Your task to perform on an android device: Open Google Maps and go to "Timeline" Image 0: 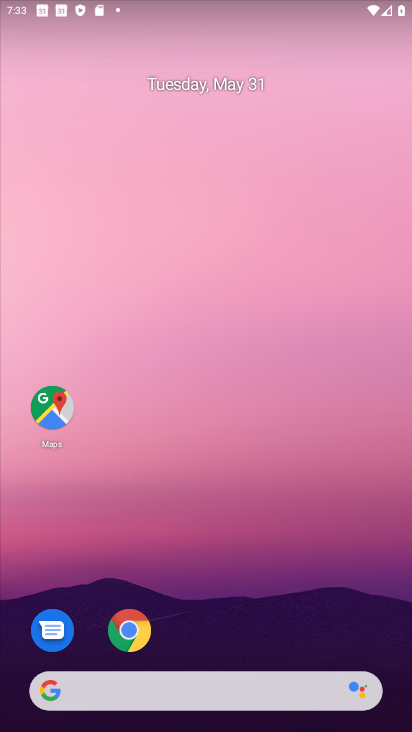
Step 0: drag from (253, 637) to (261, 247)
Your task to perform on an android device: Open Google Maps and go to "Timeline" Image 1: 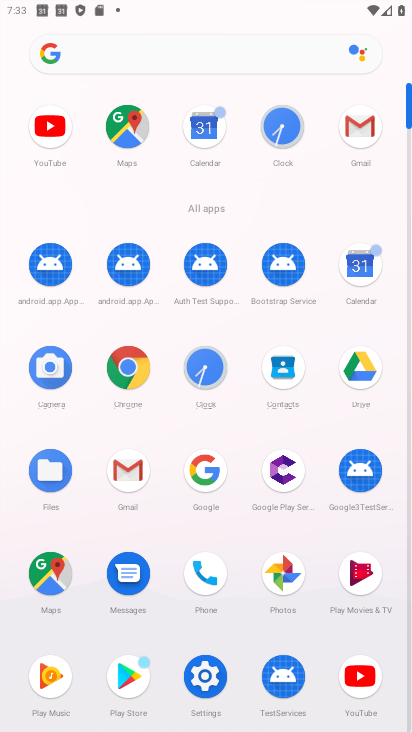
Step 1: click (41, 577)
Your task to perform on an android device: Open Google Maps and go to "Timeline" Image 2: 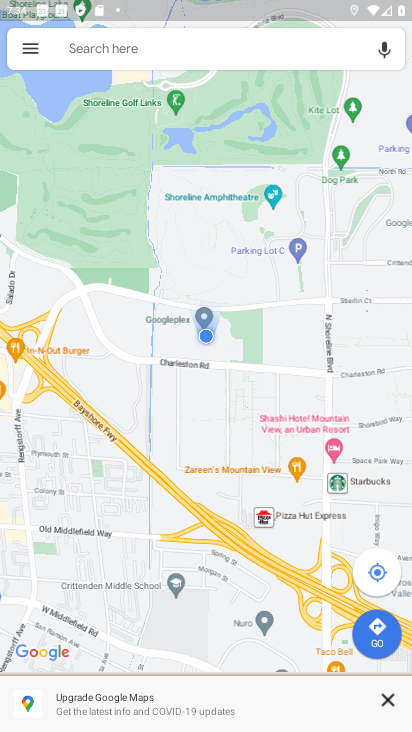
Step 2: click (18, 41)
Your task to perform on an android device: Open Google Maps and go to "Timeline" Image 3: 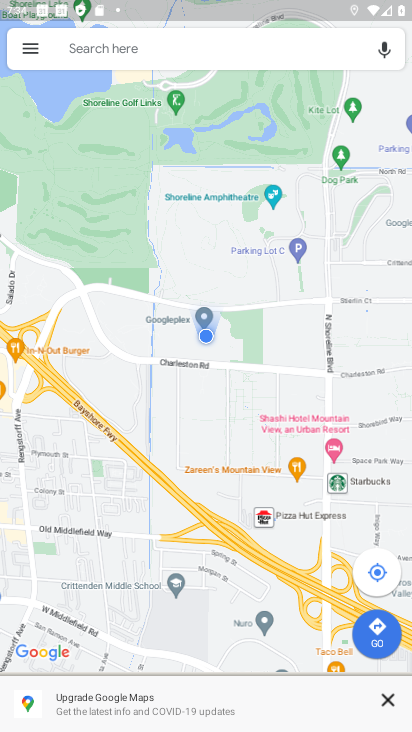
Step 3: click (25, 34)
Your task to perform on an android device: Open Google Maps and go to "Timeline" Image 4: 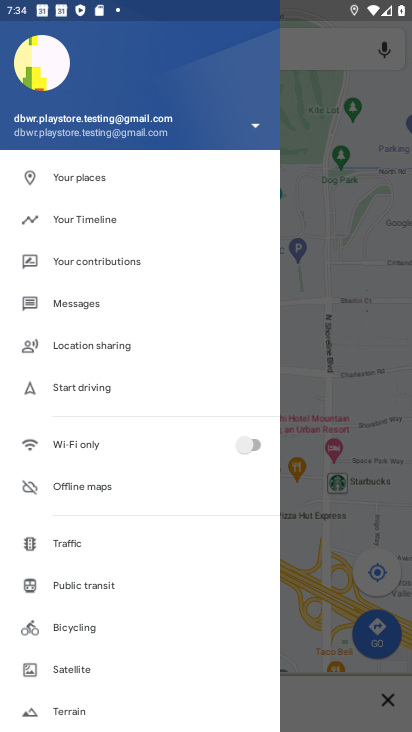
Step 4: click (112, 215)
Your task to perform on an android device: Open Google Maps and go to "Timeline" Image 5: 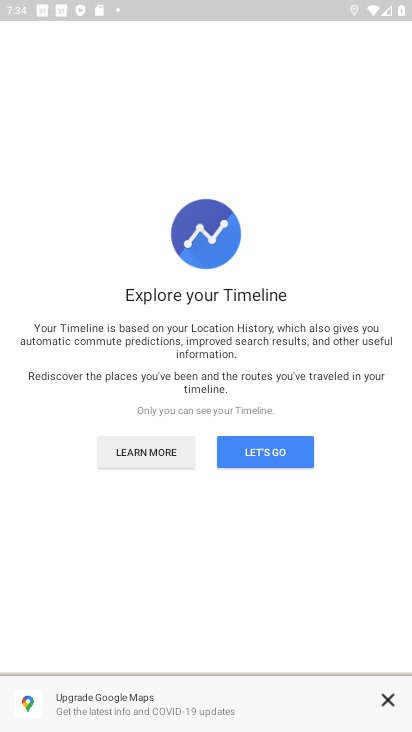
Step 5: click (262, 443)
Your task to perform on an android device: Open Google Maps and go to "Timeline" Image 6: 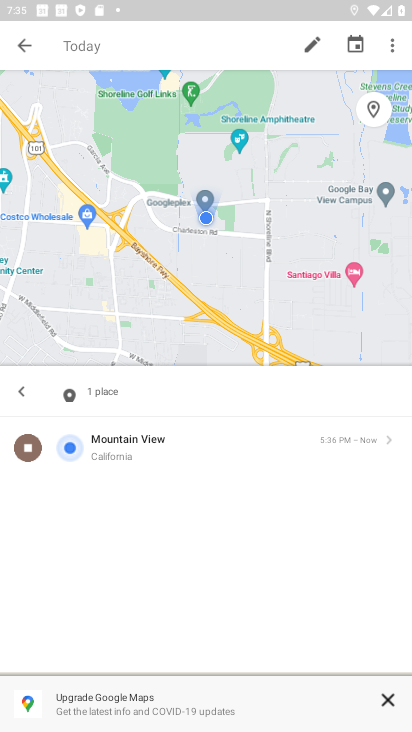
Step 6: task complete